Your task to perform on an android device: find which apps use the phone's location Image 0: 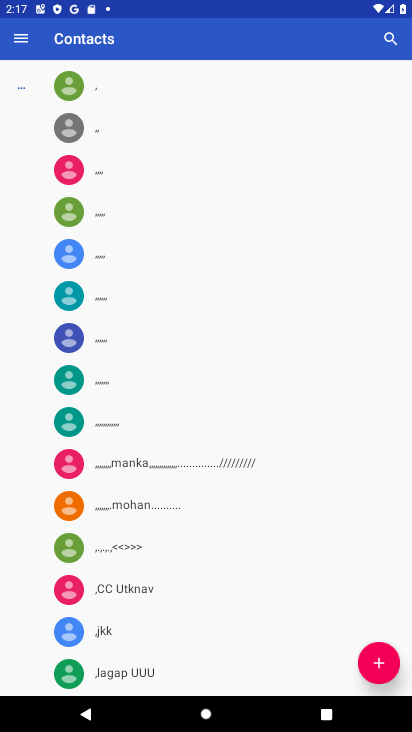
Step 0: press home button
Your task to perform on an android device: find which apps use the phone's location Image 1: 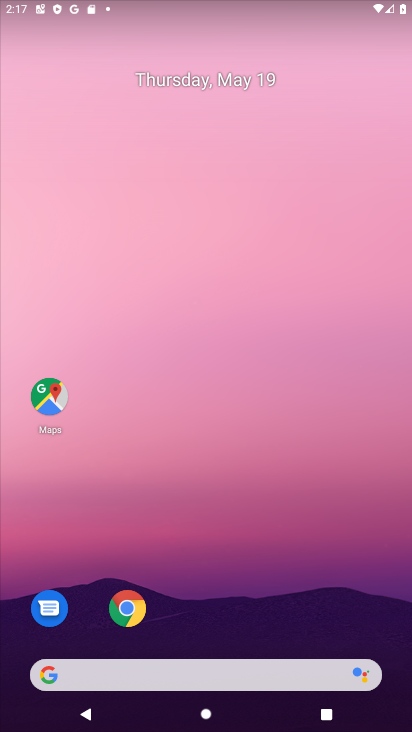
Step 1: drag from (273, 623) to (218, 64)
Your task to perform on an android device: find which apps use the phone's location Image 2: 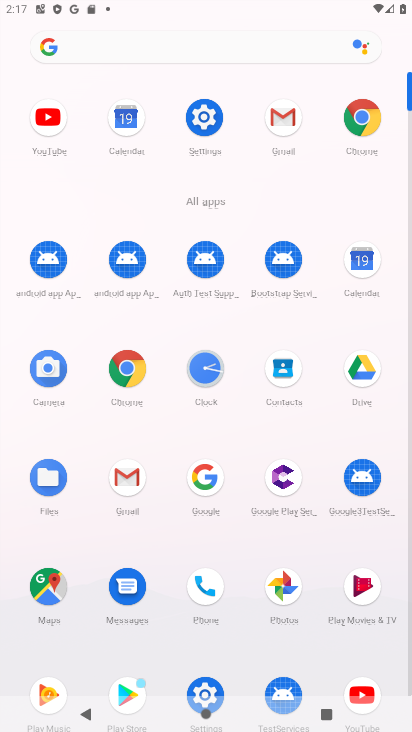
Step 2: click (216, 132)
Your task to perform on an android device: find which apps use the phone's location Image 3: 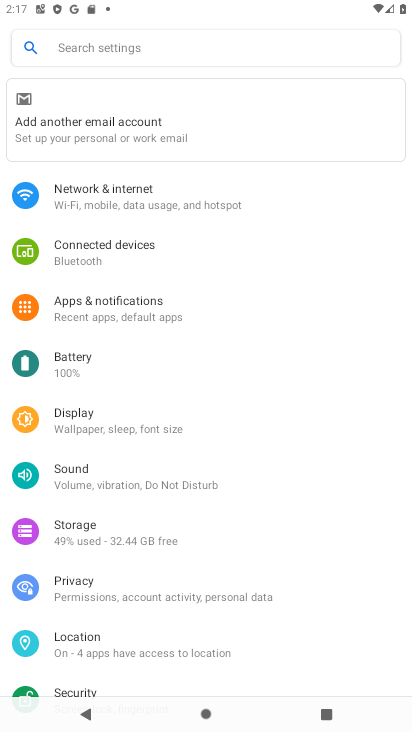
Step 3: click (192, 635)
Your task to perform on an android device: find which apps use the phone's location Image 4: 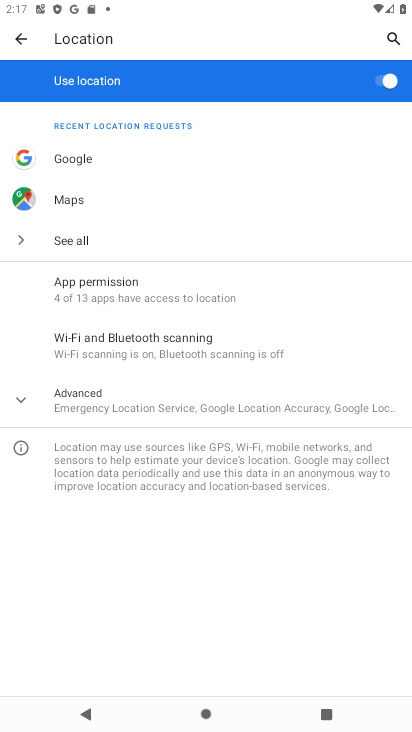
Step 4: click (261, 406)
Your task to perform on an android device: find which apps use the phone's location Image 5: 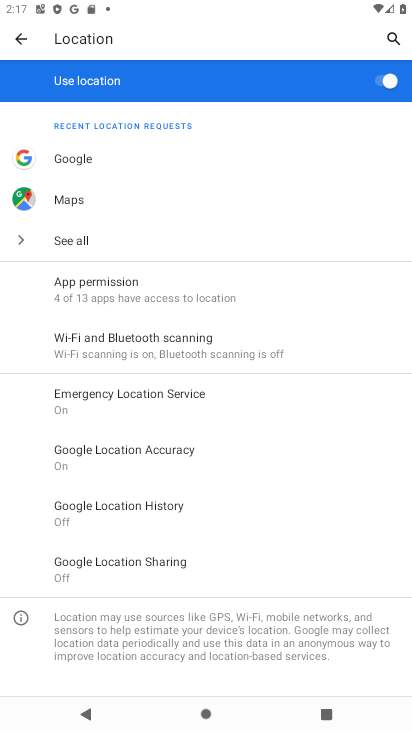
Step 5: click (208, 295)
Your task to perform on an android device: find which apps use the phone's location Image 6: 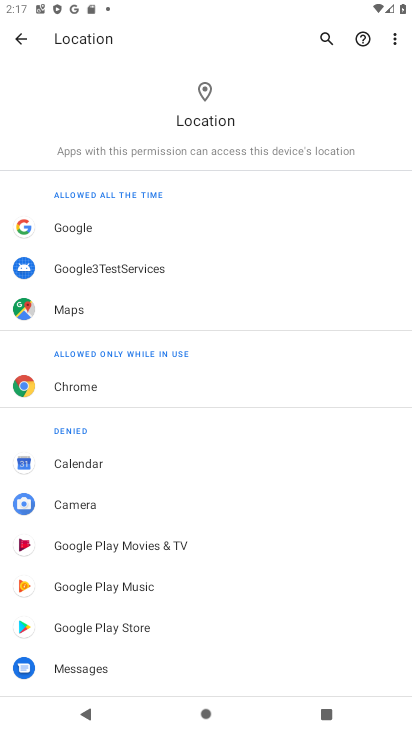
Step 6: task complete